Your task to perform on an android device: uninstall "Google Docs" Image 0: 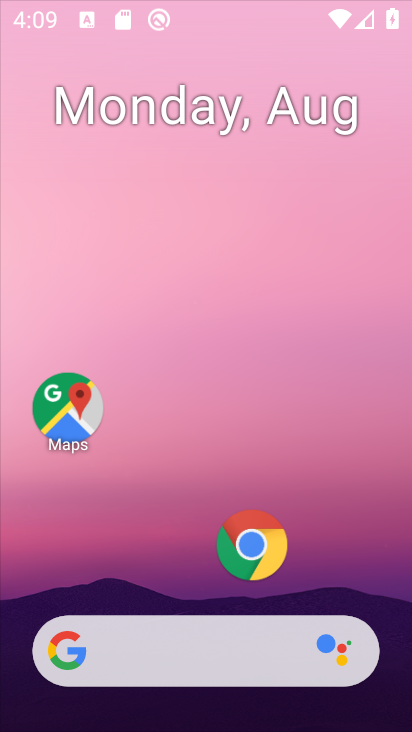
Step 0: click (250, 10)
Your task to perform on an android device: uninstall "Google Docs" Image 1: 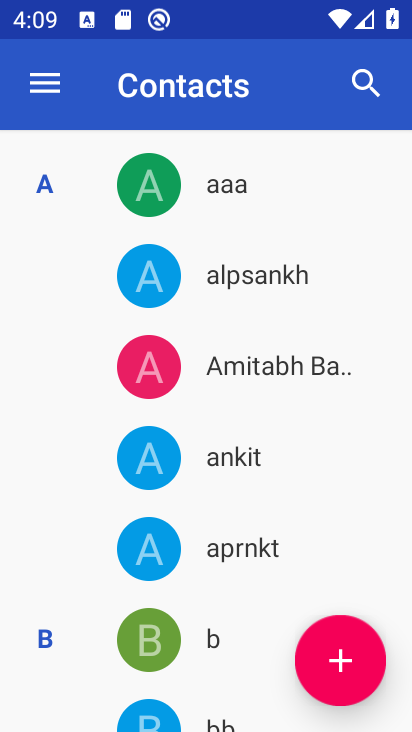
Step 1: press home button
Your task to perform on an android device: uninstall "Google Docs" Image 2: 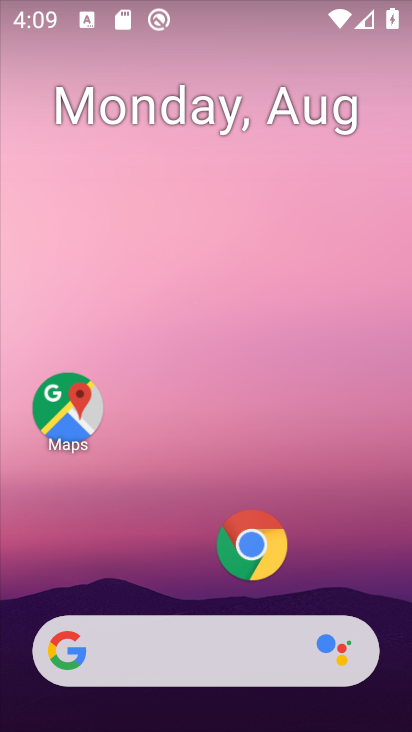
Step 2: drag from (127, 567) to (249, 11)
Your task to perform on an android device: uninstall "Google Docs" Image 3: 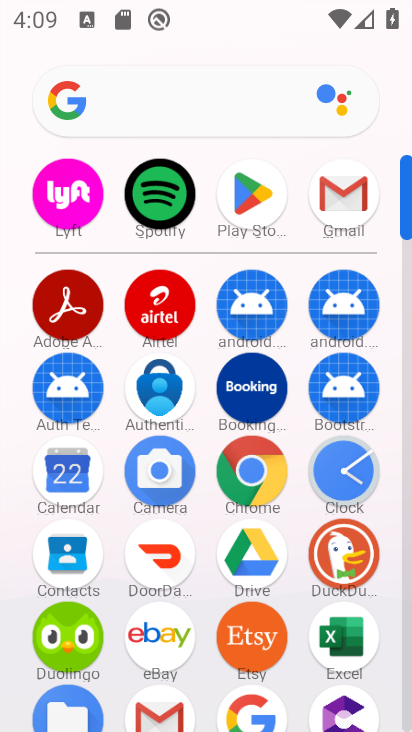
Step 3: click (247, 193)
Your task to perform on an android device: uninstall "Google Docs" Image 4: 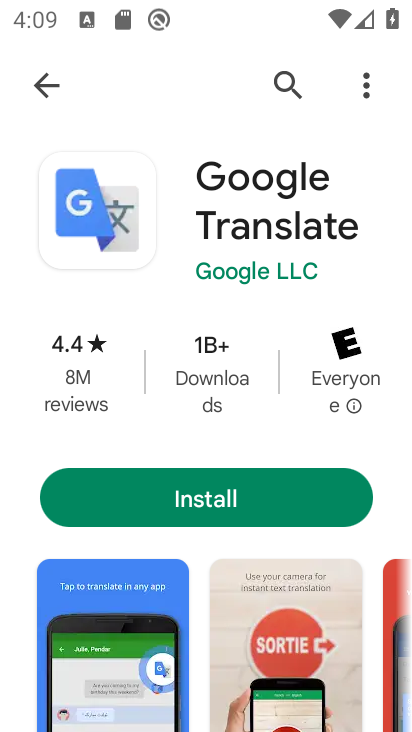
Step 4: click (283, 75)
Your task to perform on an android device: uninstall "Google Docs" Image 5: 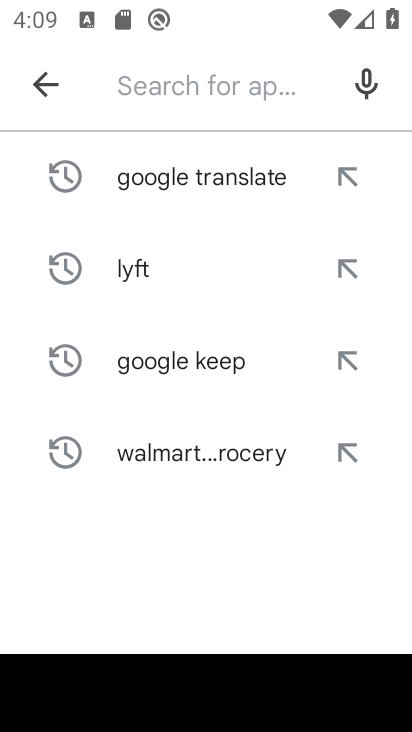
Step 5: click (154, 92)
Your task to perform on an android device: uninstall "Google Docs" Image 6: 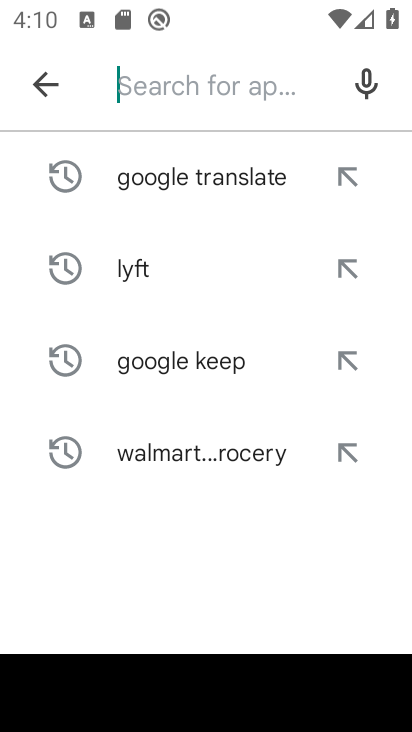
Step 6: click (152, 76)
Your task to perform on an android device: uninstall "Google Docs" Image 7: 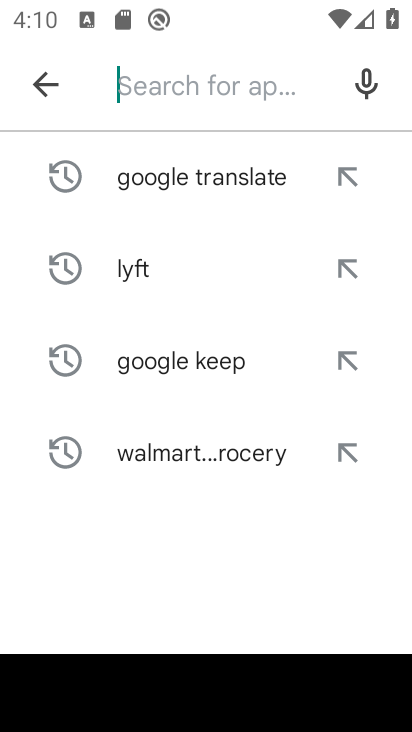
Step 7: click (175, 568)
Your task to perform on an android device: uninstall "Google Docs" Image 8: 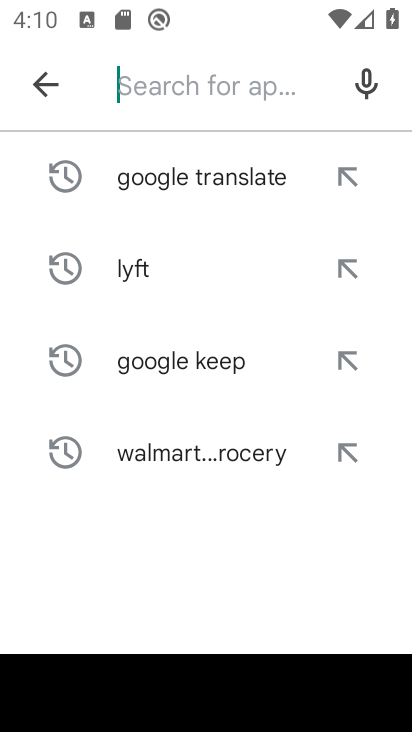
Step 8: type "Google Docs"
Your task to perform on an android device: uninstall "Google Docs" Image 9: 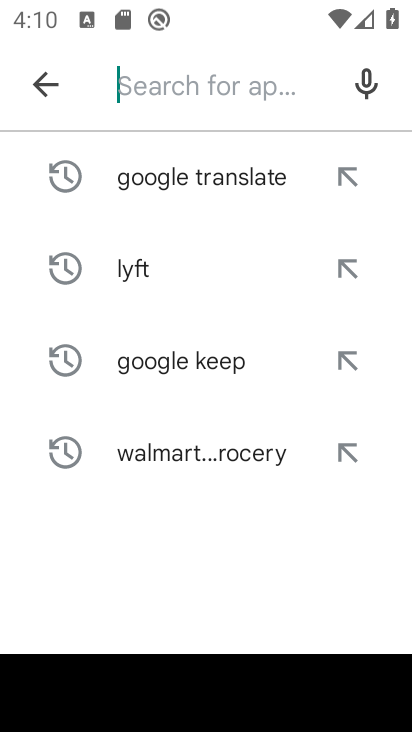
Step 9: click (175, 568)
Your task to perform on an android device: uninstall "Google Docs" Image 10: 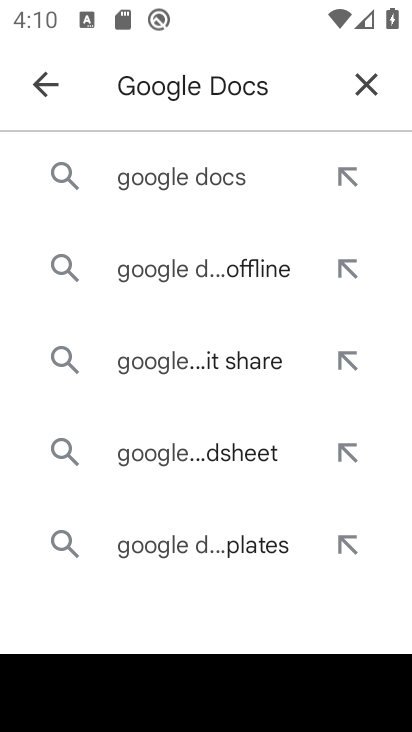
Step 10: click (178, 191)
Your task to perform on an android device: uninstall "Google Docs" Image 11: 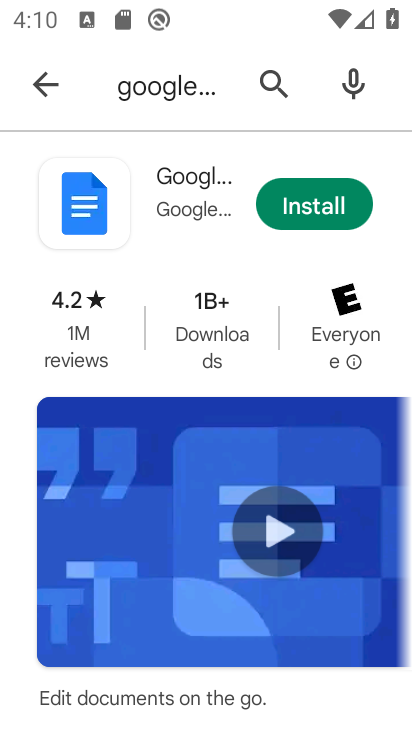
Step 11: click (182, 200)
Your task to perform on an android device: uninstall "Google Docs" Image 12: 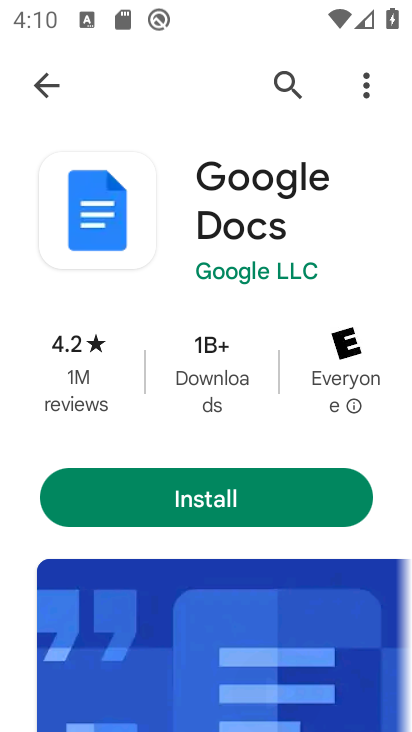
Step 12: task complete